Your task to perform on an android device: Open Wikipedia Image 0: 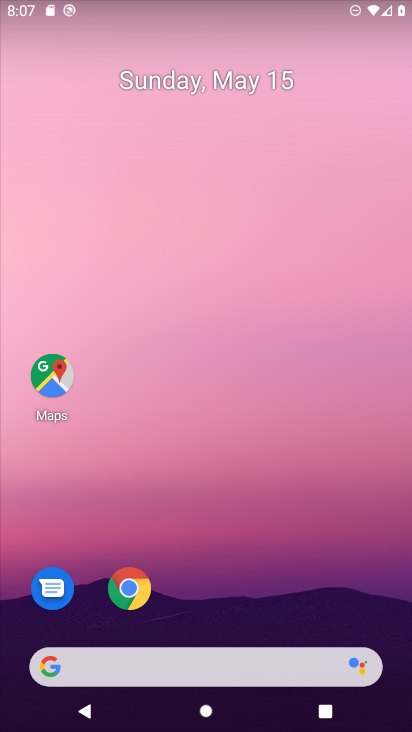
Step 0: click (139, 589)
Your task to perform on an android device: Open Wikipedia Image 1: 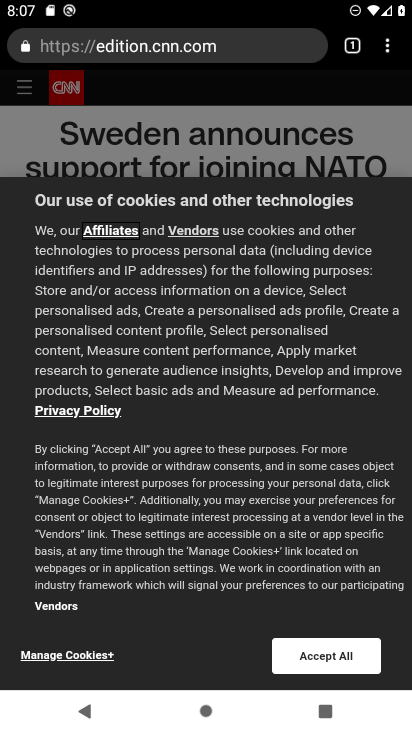
Step 1: click (347, 51)
Your task to perform on an android device: Open Wikipedia Image 2: 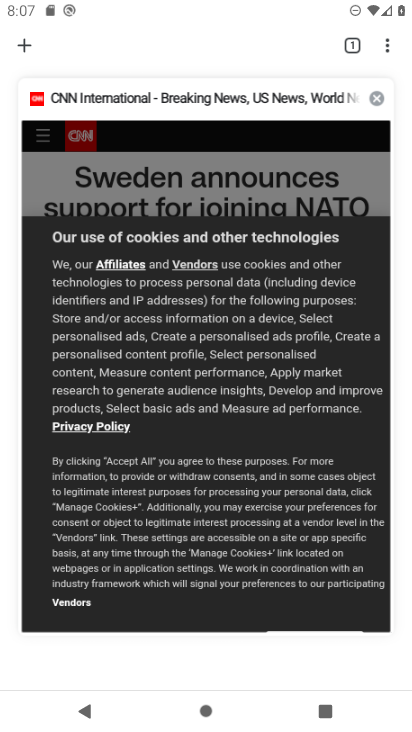
Step 2: click (373, 96)
Your task to perform on an android device: Open Wikipedia Image 3: 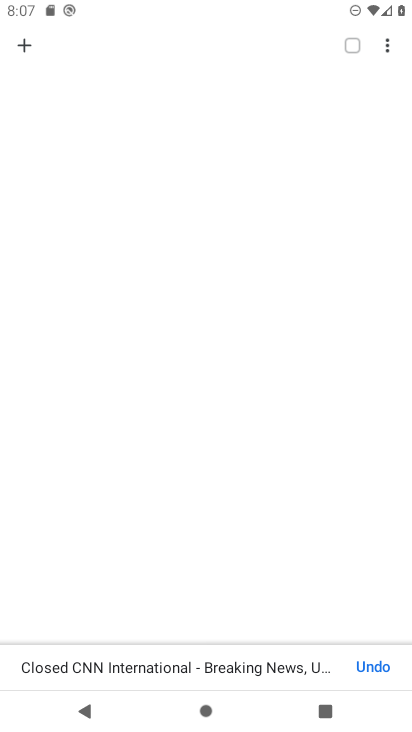
Step 3: click (21, 48)
Your task to perform on an android device: Open Wikipedia Image 4: 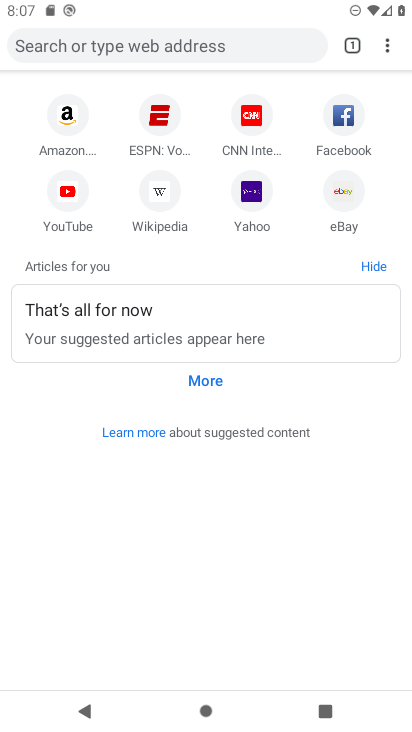
Step 4: click (162, 188)
Your task to perform on an android device: Open Wikipedia Image 5: 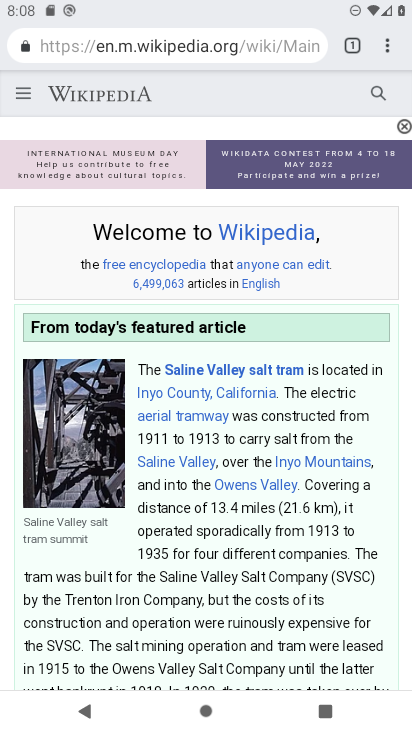
Step 5: task complete